Your task to perform on an android device: turn smart compose on in the gmail app Image 0: 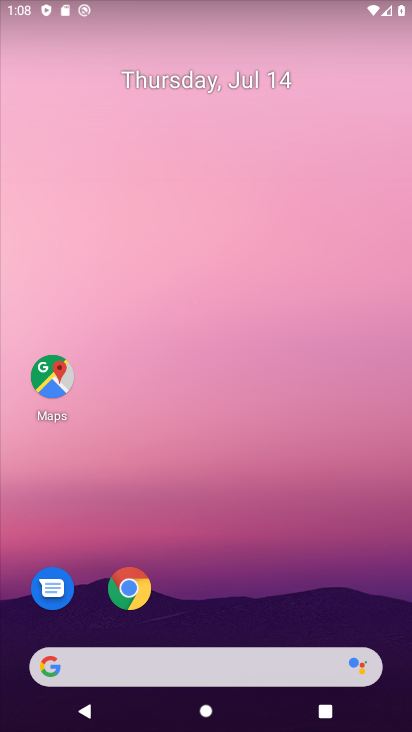
Step 0: drag from (253, 698) to (295, 89)
Your task to perform on an android device: turn smart compose on in the gmail app Image 1: 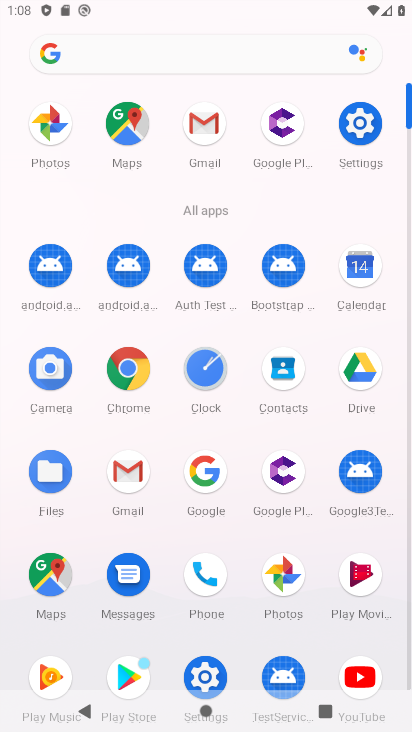
Step 1: click (188, 120)
Your task to perform on an android device: turn smart compose on in the gmail app Image 2: 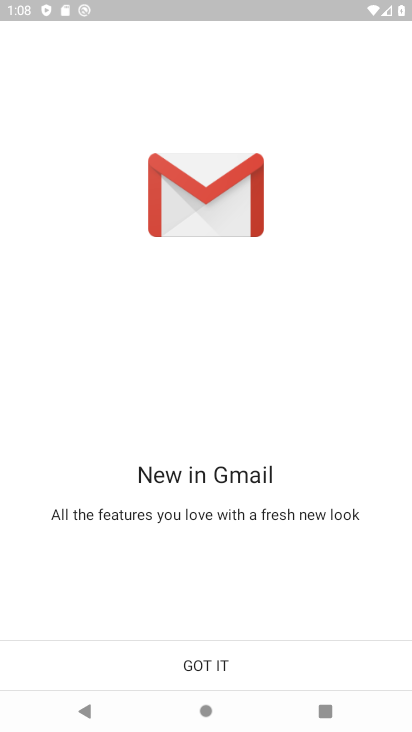
Step 2: click (173, 647)
Your task to perform on an android device: turn smart compose on in the gmail app Image 3: 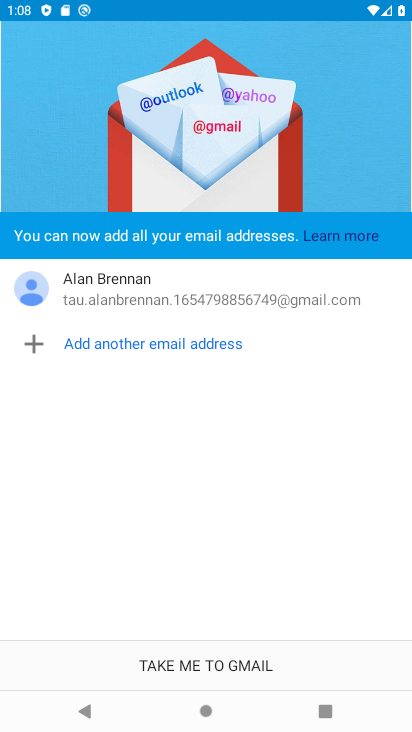
Step 3: click (182, 664)
Your task to perform on an android device: turn smart compose on in the gmail app Image 4: 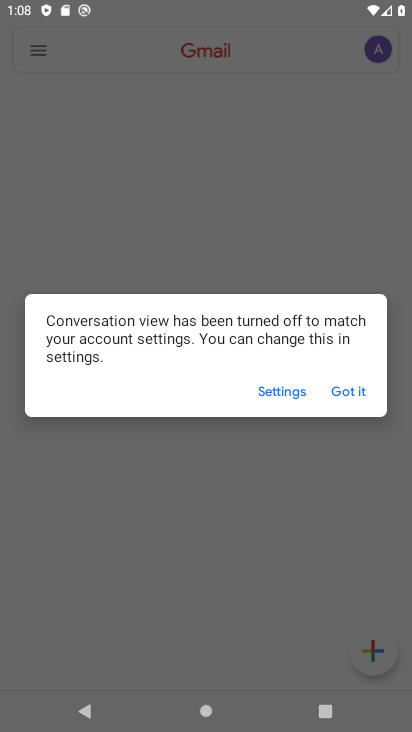
Step 4: click (357, 382)
Your task to perform on an android device: turn smart compose on in the gmail app Image 5: 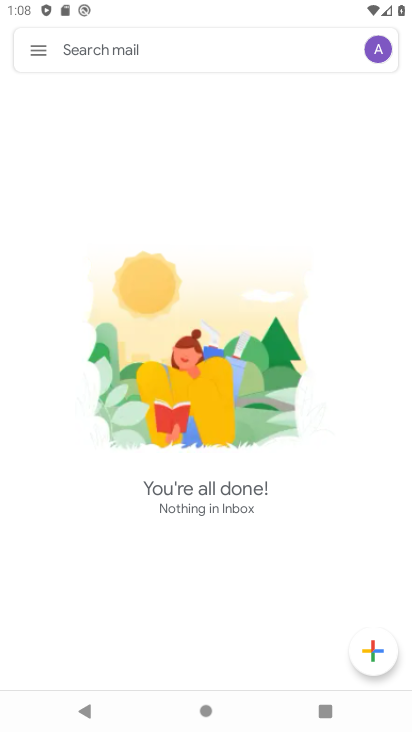
Step 5: click (38, 50)
Your task to perform on an android device: turn smart compose on in the gmail app Image 6: 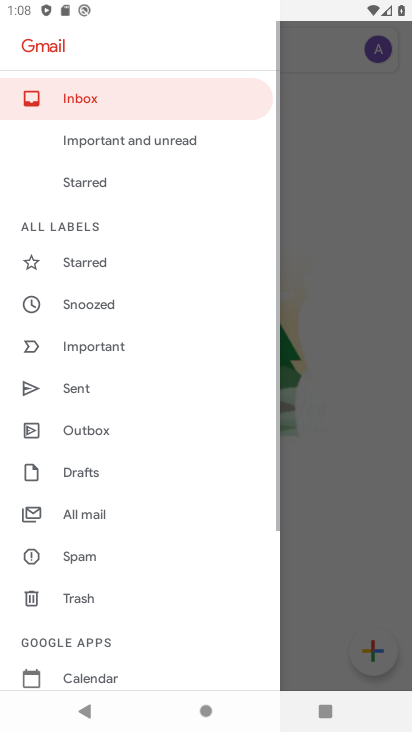
Step 6: drag from (105, 566) to (139, 49)
Your task to perform on an android device: turn smart compose on in the gmail app Image 7: 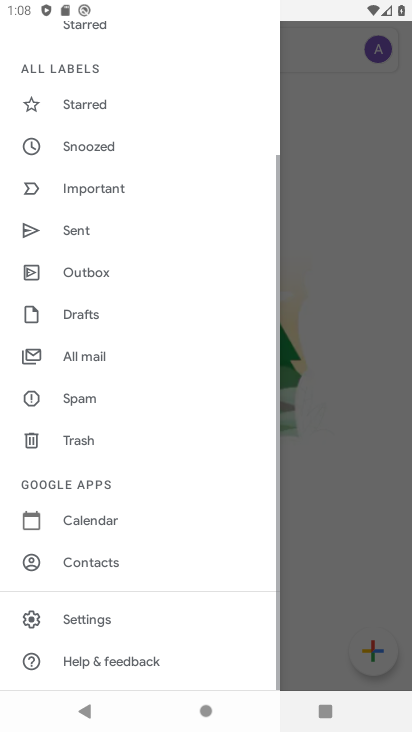
Step 7: click (168, 622)
Your task to perform on an android device: turn smart compose on in the gmail app Image 8: 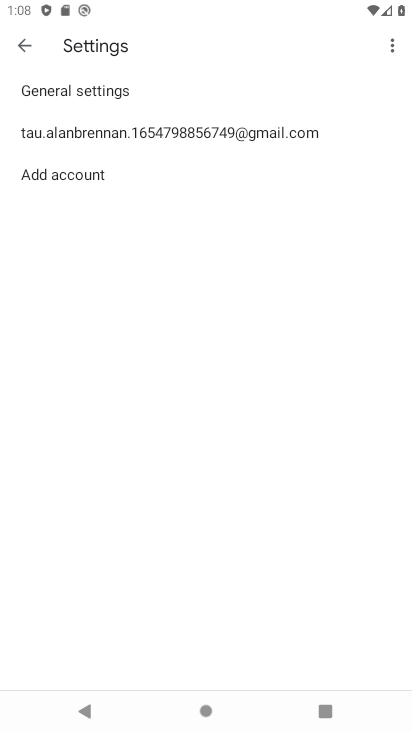
Step 8: click (143, 132)
Your task to perform on an android device: turn smart compose on in the gmail app Image 9: 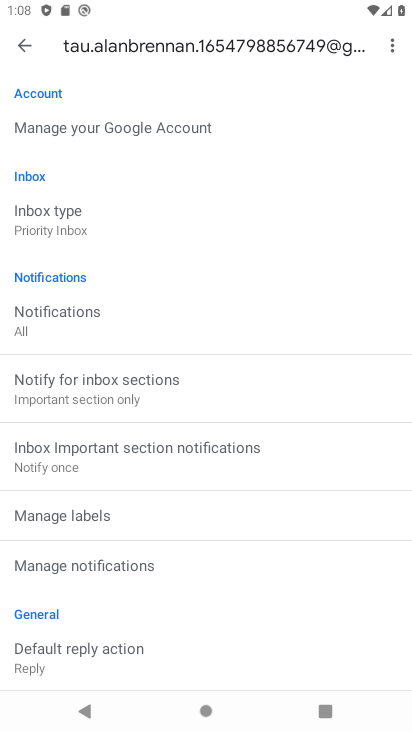
Step 9: task complete